Your task to perform on an android device: Go to Google Image 0: 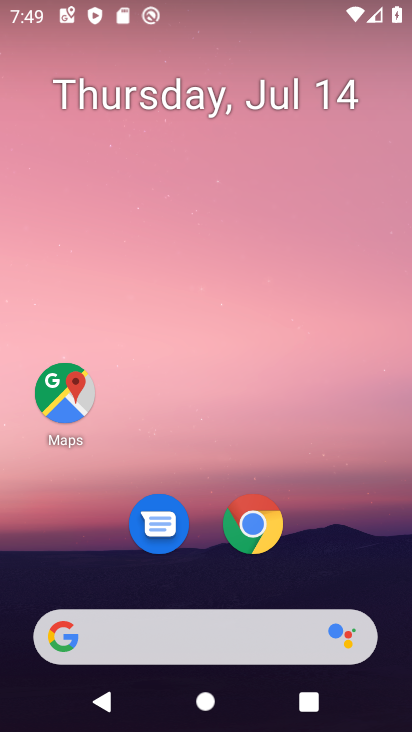
Step 0: click (163, 652)
Your task to perform on an android device: Go to Google Image 1: 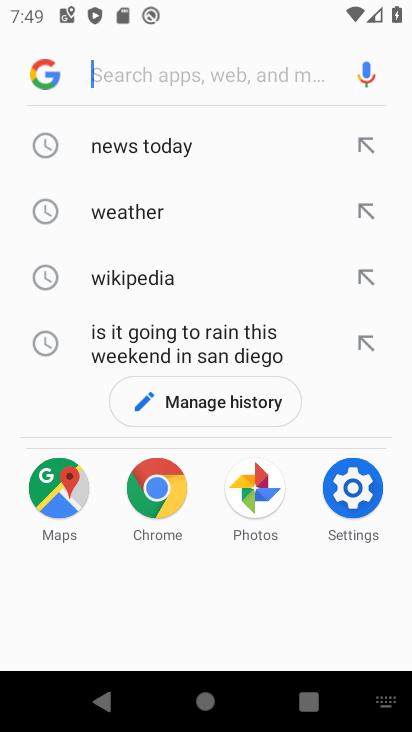
Step 1: click (43, 75)
Your task to perform on an android device: Go to Google Image 2: 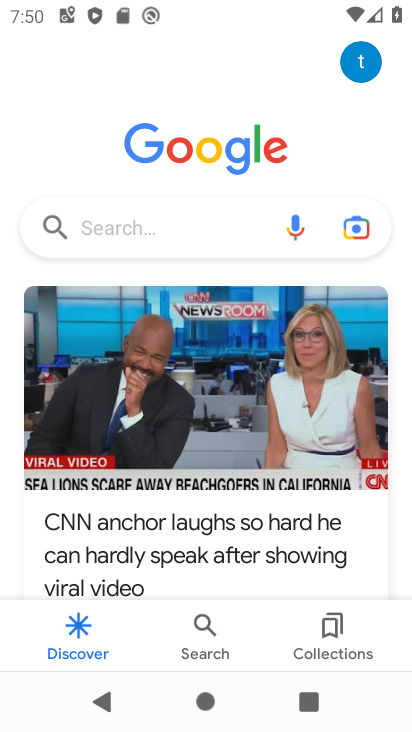
Step 2: task complete